Your task to perform on an android device: star an email in the gmail app Image 0: 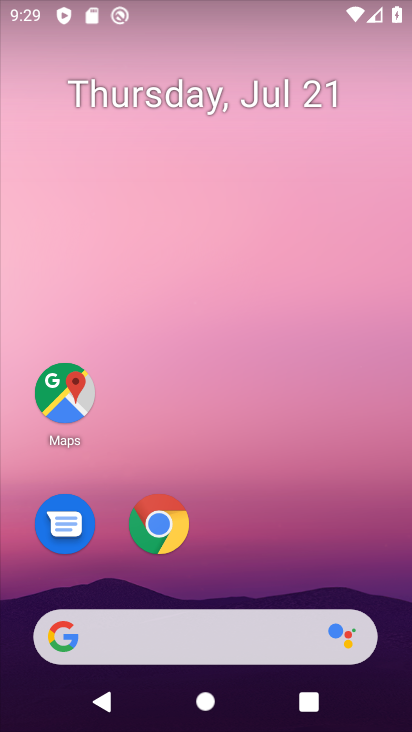
Step 0: press home button
Your task to perform on an android device: star an email in the gmail app Image 1: 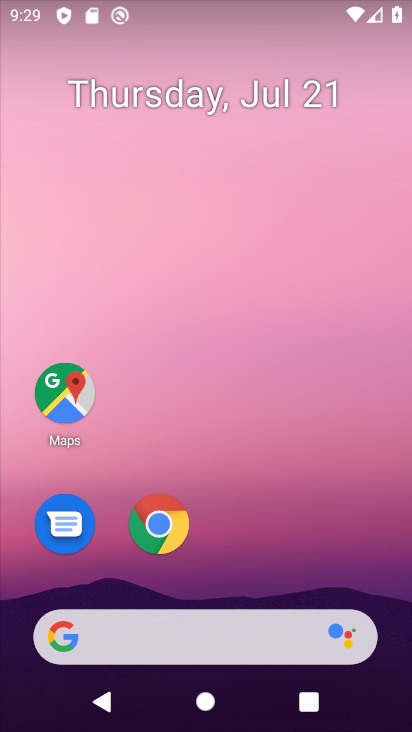
Step 1: drag from (192, 642) to (246, 83)
Your task to perform on an android device: star an email in the gmail app Image 2: 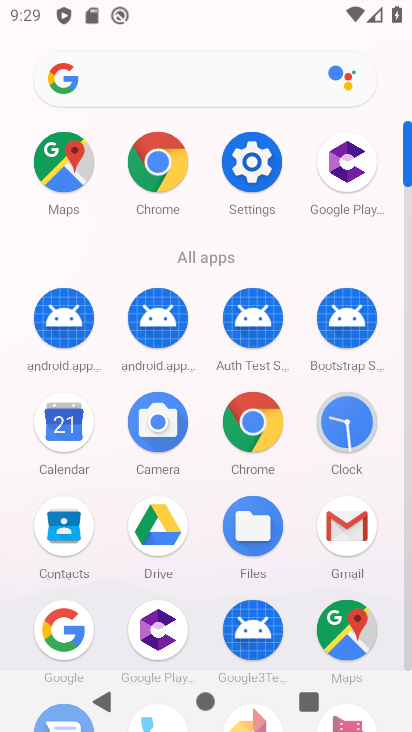
Step 2: click (336, 533)
Your task to perform on an android device: star an email in the gmail app Image 3: 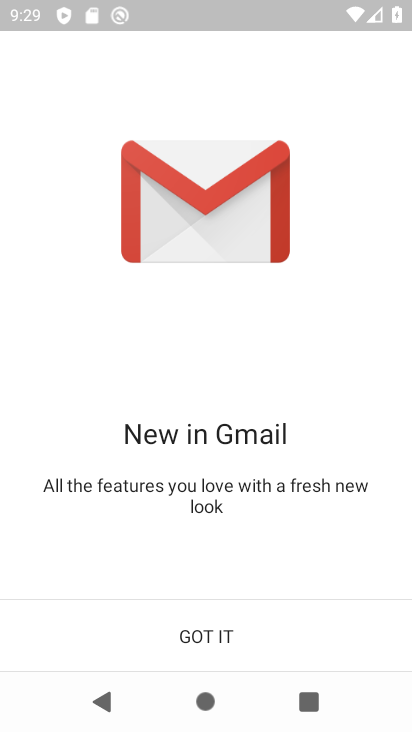
Step 3: click (207, 643)
Your task to perform on an android device: star an email in the gmail app Image 4: 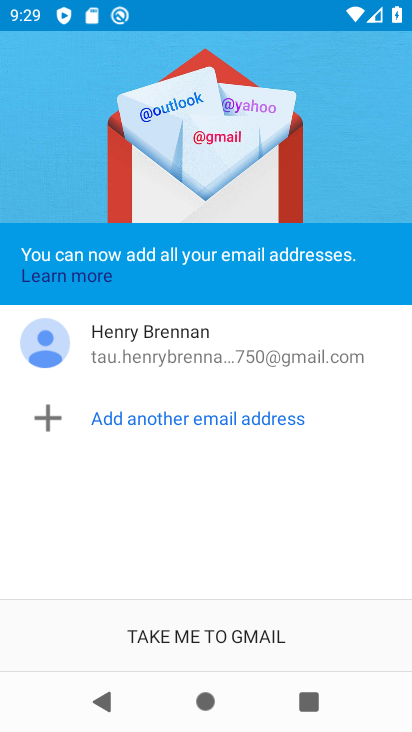
Step 4: click (207, 643)
Your task to perform on an android device: star an email in the gmail app Image 5: 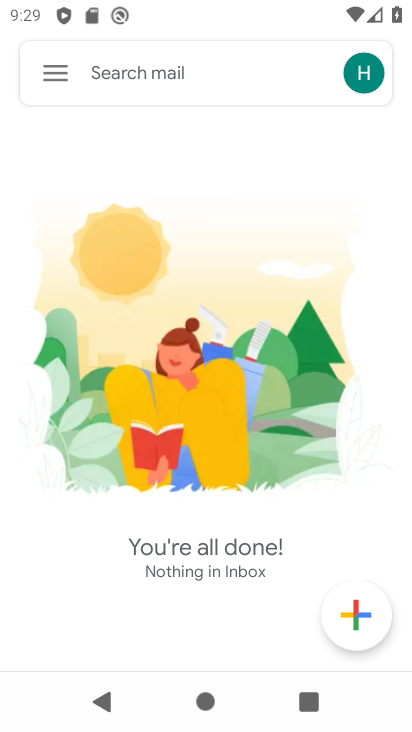
Step 5: task complete